Your task to perform on an android device: change your default location settings in chrome Image 0: 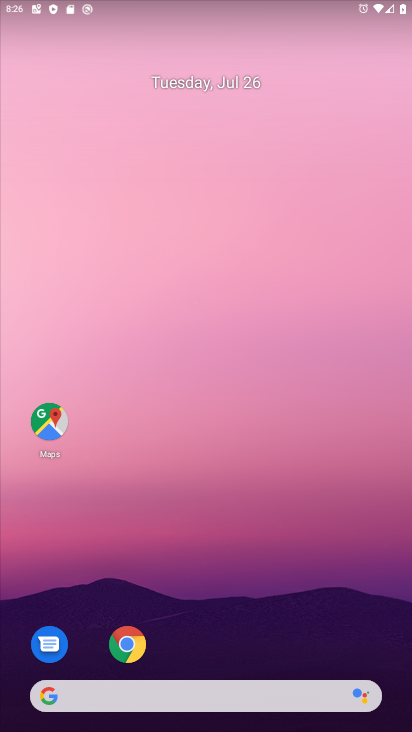
Step 0: drag from (225, 635) to (241, 199)
Your task to perform on an android device: change your default location settings in chrome Image 1: 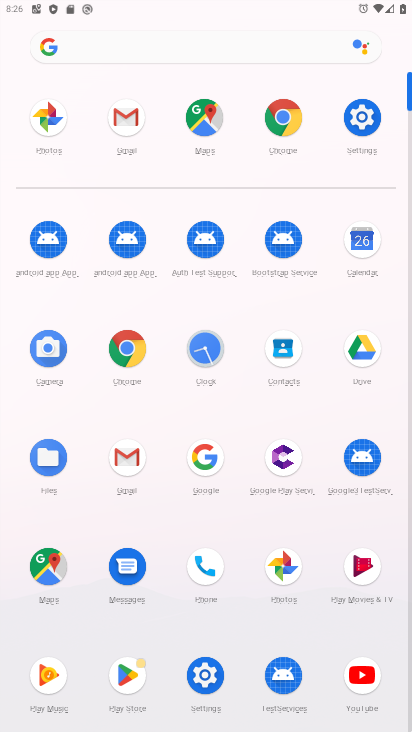
Step 1: click (124, 343)
Your task to perform on an android device: change your default location settings in chrome Image 2: 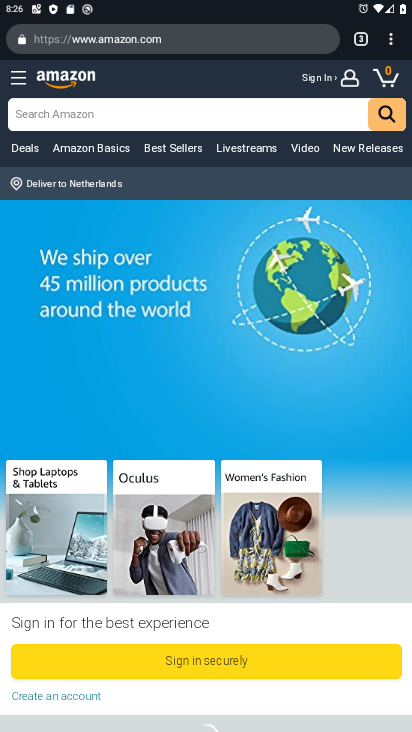
Step 2: click (394, 47)
Your task to perform on an android device: change your default location settings in chrome Image 3: 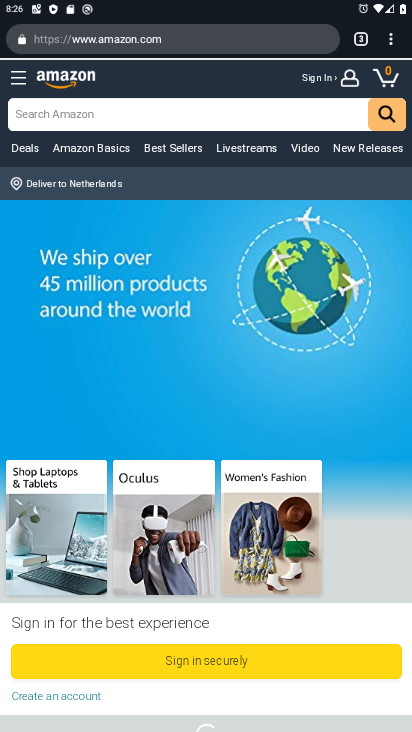
Step 3: click (394, 47)
Your task to perform on an android device: change your default location settings in chrome Image 4: 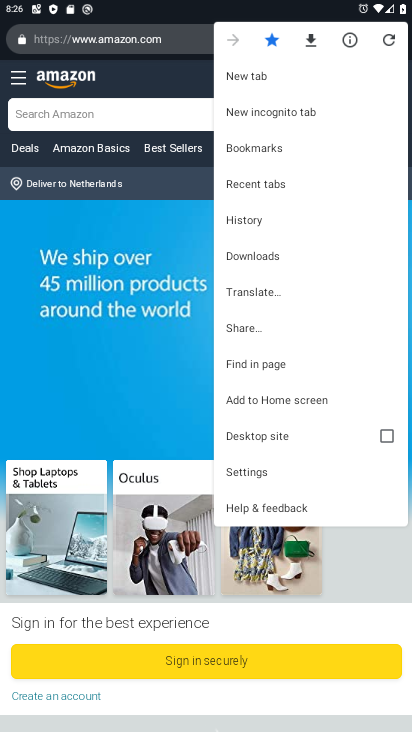
Step 4: click (259, 466)
Your task to perform on an android device: change your default location settings in chrome Image 5: 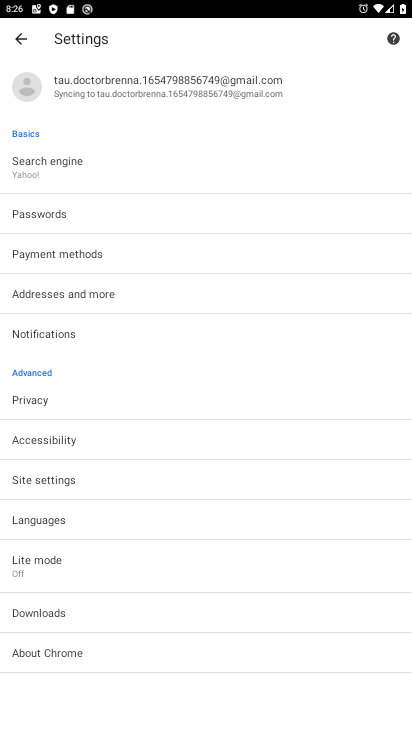
Step 5: click (50, 477)
Your task to perform on an android device: change your default location settings in chrome Image 6: 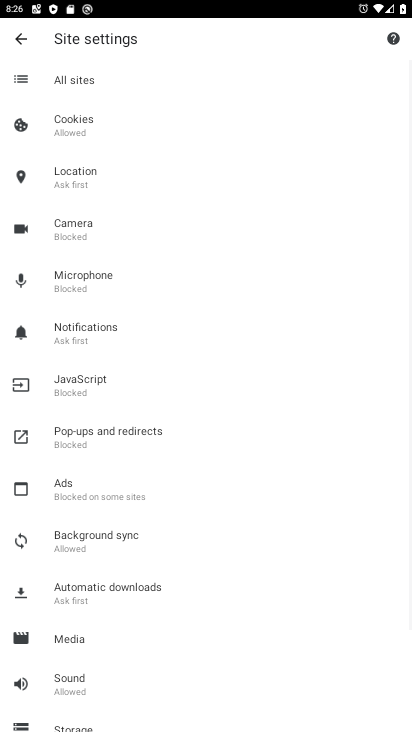
Step 6: click (60, 171)
Your task to perform on an android device: change your default location settings in chrome Image 7: 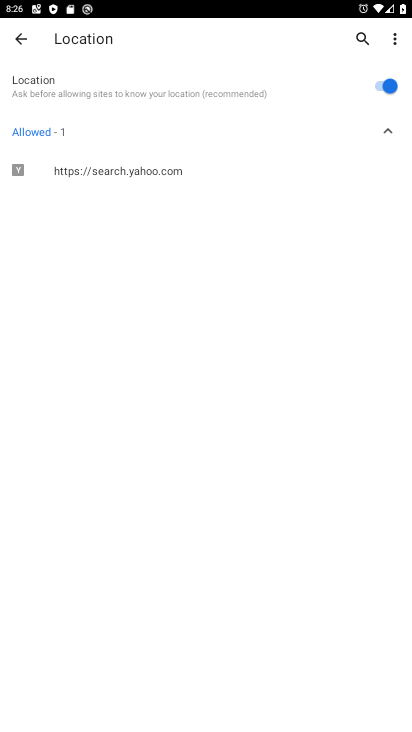
Step 7: click (379, 87)
Your task to perform on an android device: change your default location settings in chrome Image 8: 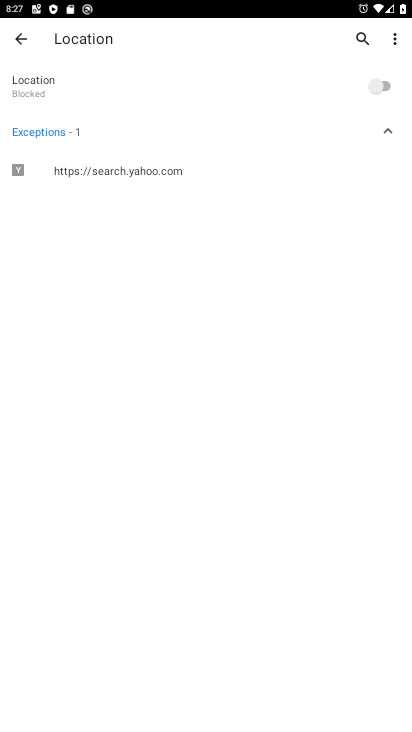
Step 8: task complete